Your task to perform on an android device: Open Google Chrome and open the bookmarks view Image 0: 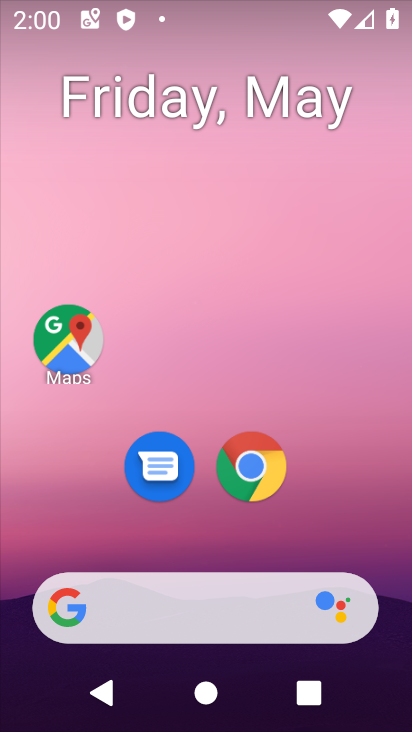
Step 0: click (275, 471)
Your task to perform on an android device: Open Google Chrome and open the bookmarks view Image 1: 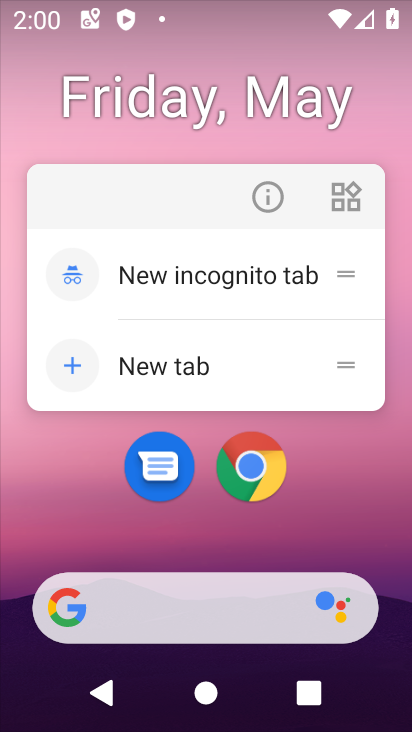
Step 1: click (331, 540)
Your task to perform on an android device: Open Google Chrome and open the bookmarks view Image 2: 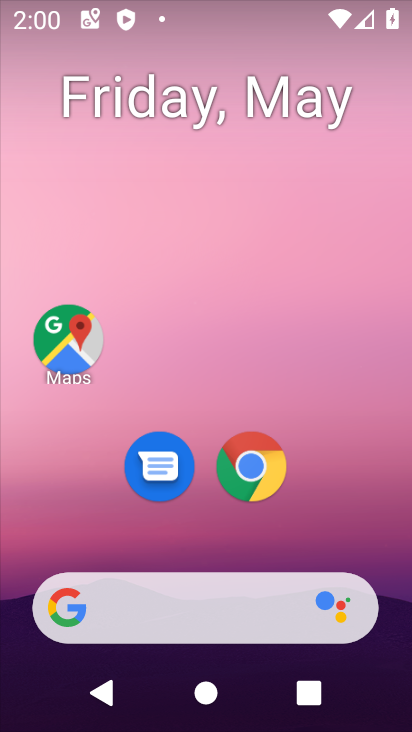
Step 2: drag from (331, 540) to (357, 68)
Your task to perform on an android device: Open Google Chrome and open the bookmarks view Image 3: 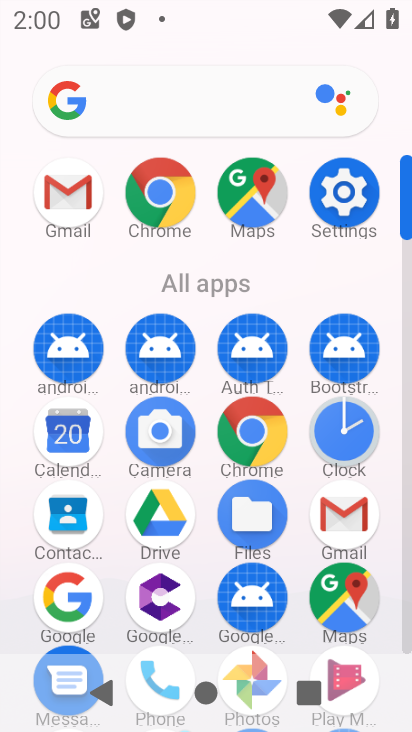
Step 3: click (257, 429)
Your task to perform on an android device: Open Google Chrome and open the bookmarks view Image 4: 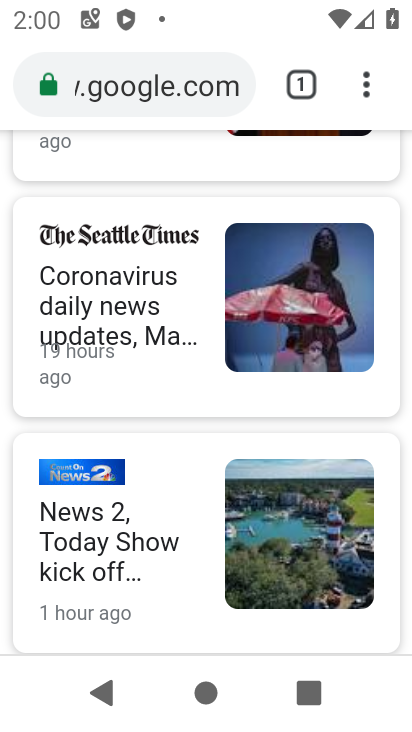
Step 4: task complete